Your task to perform on an android device: open device folders in google photos Image 0: 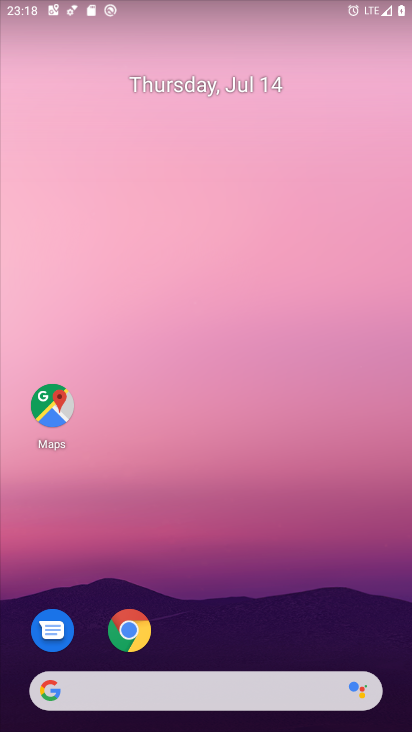
Step 0: click (176, 242)
Your task to perform on an android device: open device folders in google photos Image 1: 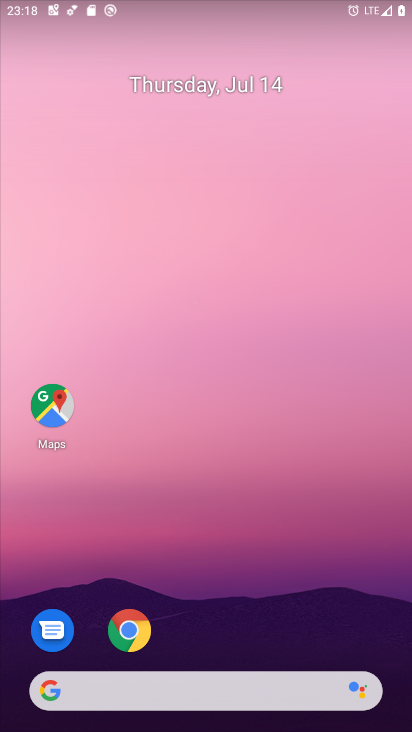
Step 1: drag from (188, 648) to (167, 203)
Your task to perform on an android device: open device folders in google photos Image 2: 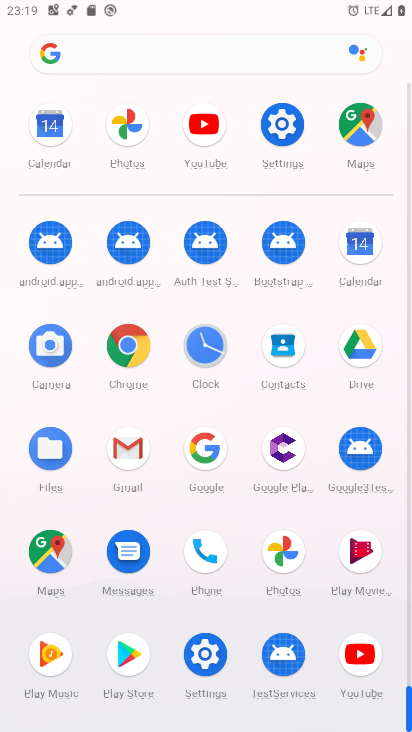
Step 2: click (275, 542)
Your task to perform on an android device: open device folders in google photos Image 3: 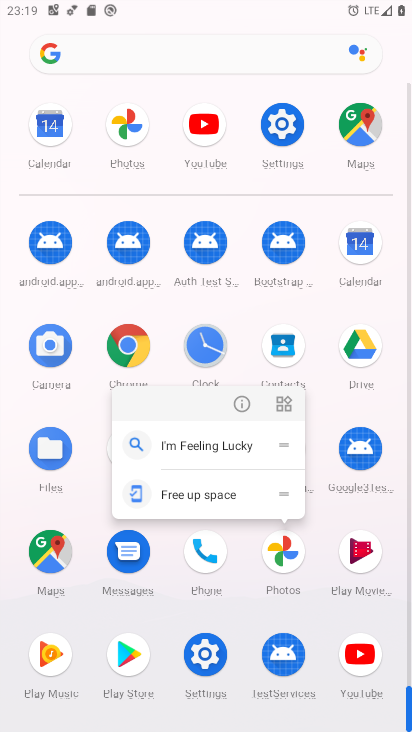
Step 3: click (238, 404)
Your task to perform on an android device: open device folders in google photos Image 4: 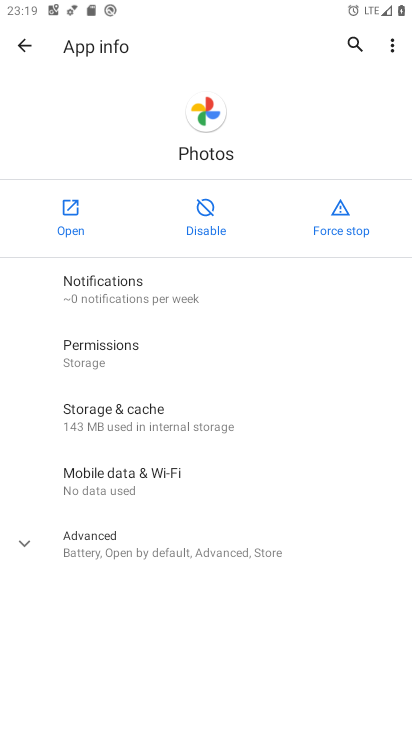
Step 4: click (66, 201)
Your task to perform on an android device: open device folders in google photos Image 5: 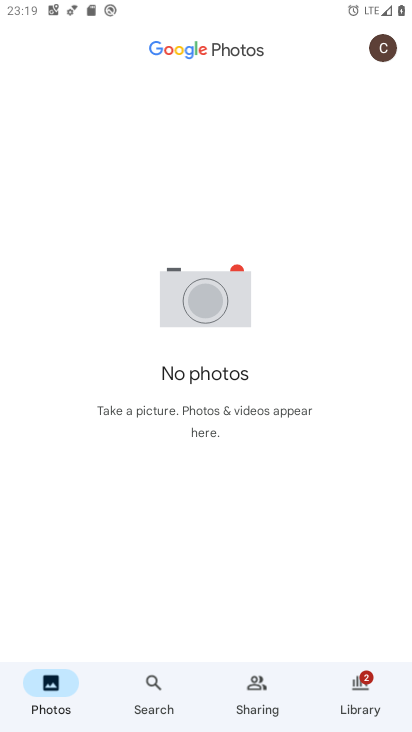
Step 5: task complete